Your task to perform on an android device: toggle location history Image 0: 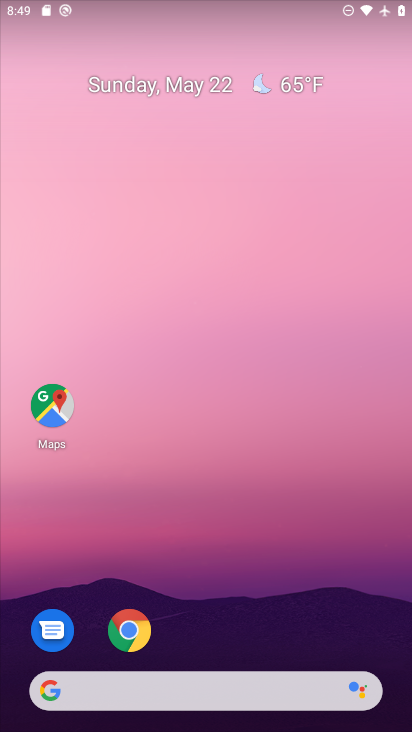
Step 0: press home button
Your task to perform on an android device: toggle location history Image 1: 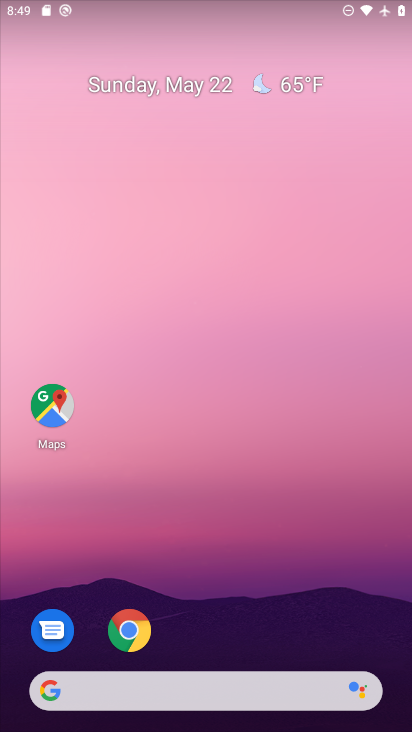
Step 1: click (51, 412)
Your task to perform on an android device: toggle location history Image 2: 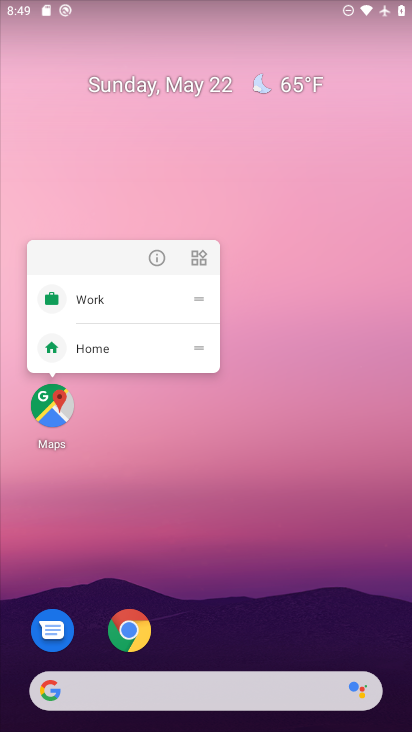
Step 2: click (48, 405)
Your task to perform on an android device: toggle location history Image 3: 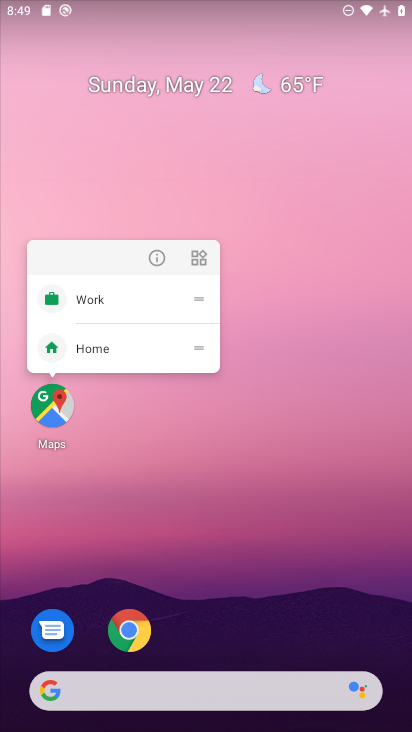
Step 3: click (48, 417)
Your task to perform on an android device: toggle location history Image 4: 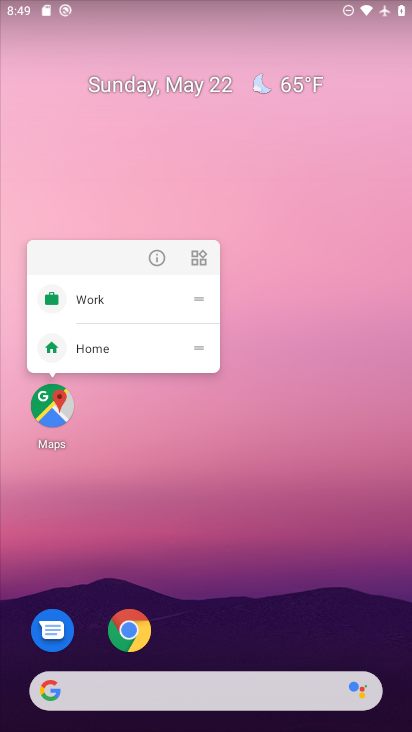
Step 4: click (52, 422)
Your task to perform on an android device: toggle location history Image 5: 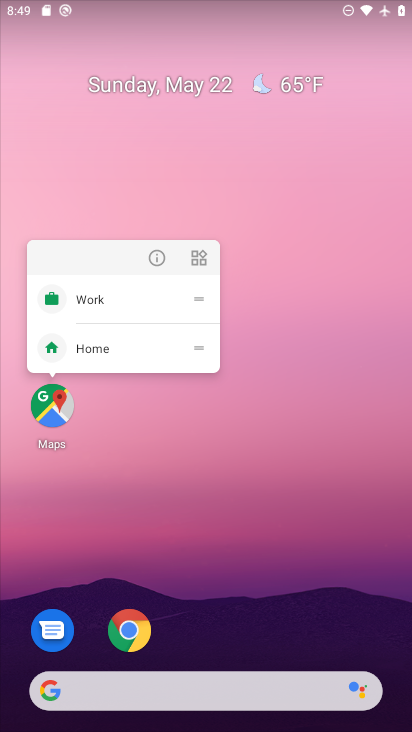
Step 5: click (55, 416)
Your task to perform on an android device: toggle location history Image 6: 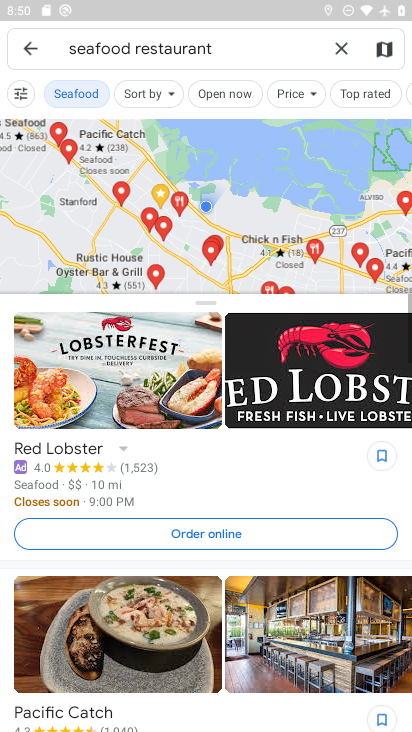
Step 6: click (29, 49)
Your task to perform on an android device: toggle location history Image 7: 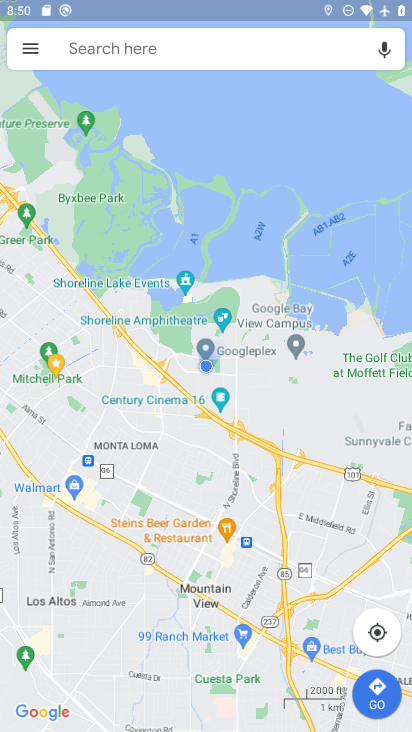
Step 7: click (29, 51)
Your task to perform on an android device: toggle location history Image 8: 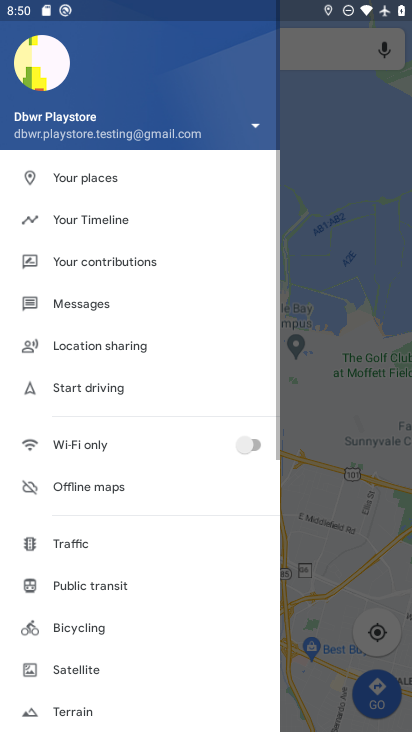
Step 8: click (88, 218)
Your task to perform on an android device: toggle location history Image 9: 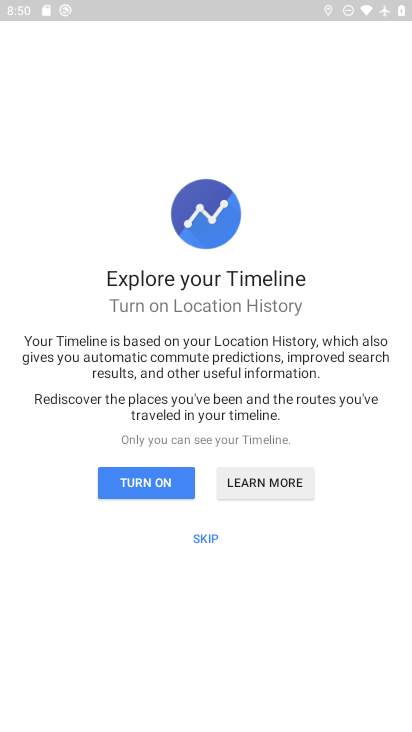
Step 9: click (211, 538)
Your task to perform on an android device: toggle location history Image 10: 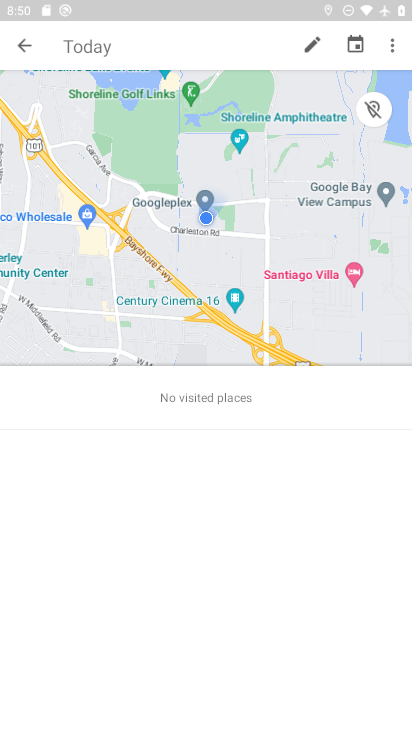
Step 10: click (394, 41)
Your task to perform on an android device: toggle location history Image 11: 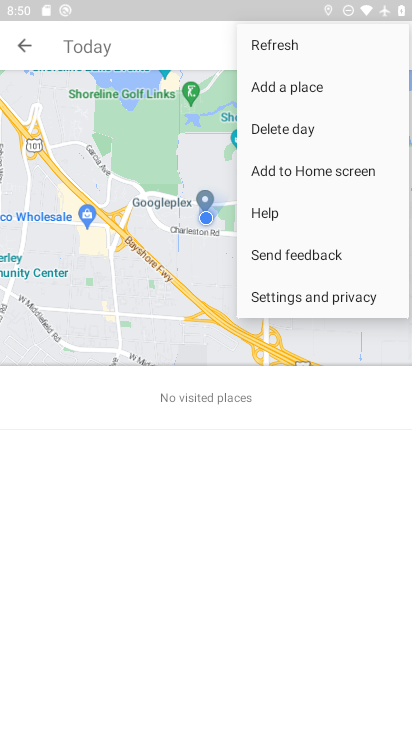
Step 11: click (291, 292)
Your task to perform on an android device: toggle location history Image 12: 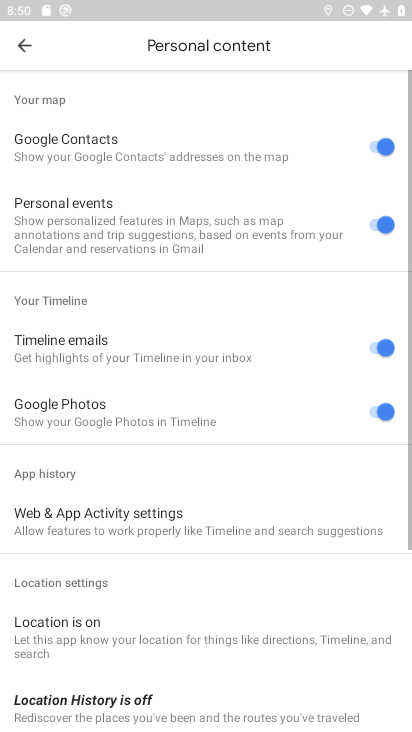
Step 12: drag from (209, 547) to (319, 203)
Your task to perform on an android device: toggle location history Image 13: 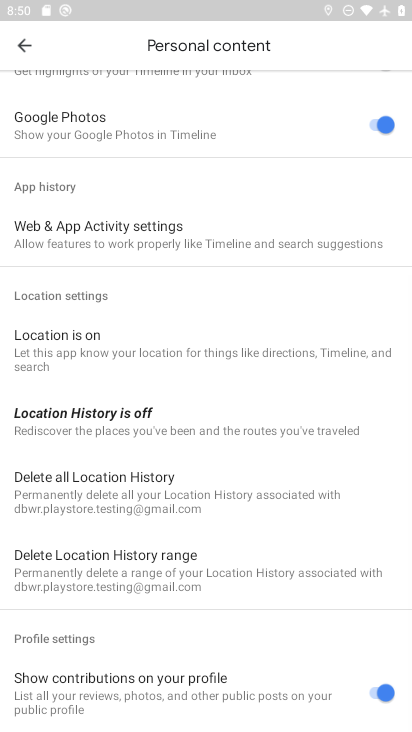
Step 13: click (193, 429)
Your task to perform on an android device: toggle location history Image 14: 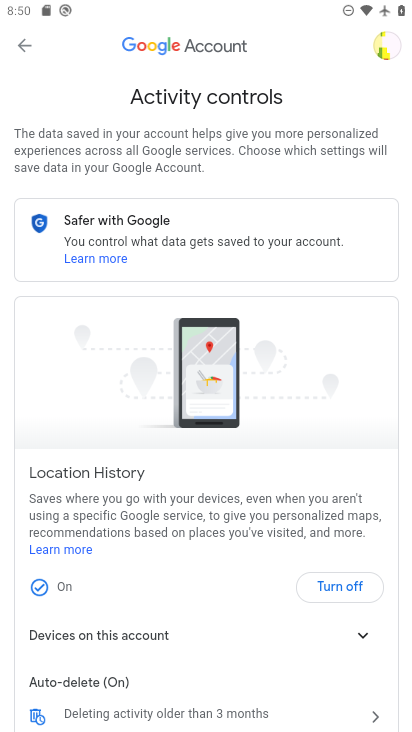
Step 14: click (342, 584)
Your task to perform on an android device: toggle location history Image 15: 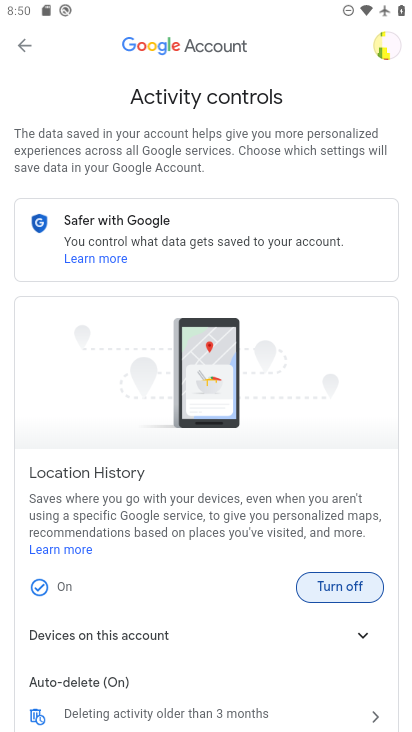
Step 15: click (328, 592)
Your task to perform on an android device: toggle location history Image 16: 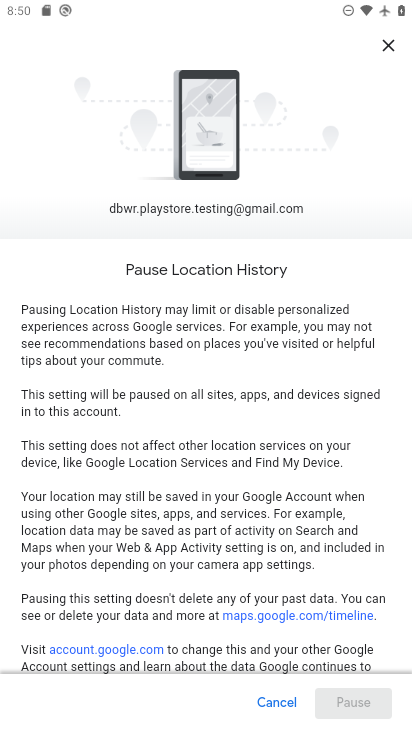
Step 16: drag from (228, 586) to (380, 218)
Your task to perform on an android device: toggle location history Image 17: 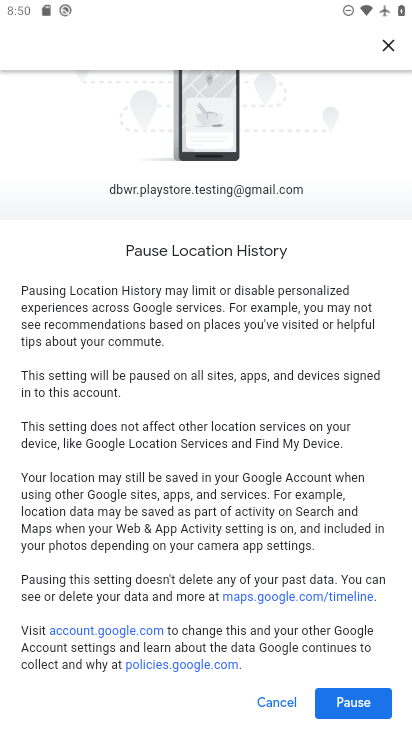
Step 17: click (353, 705)
Your task to perform on an android device: toggle location history Image 18: 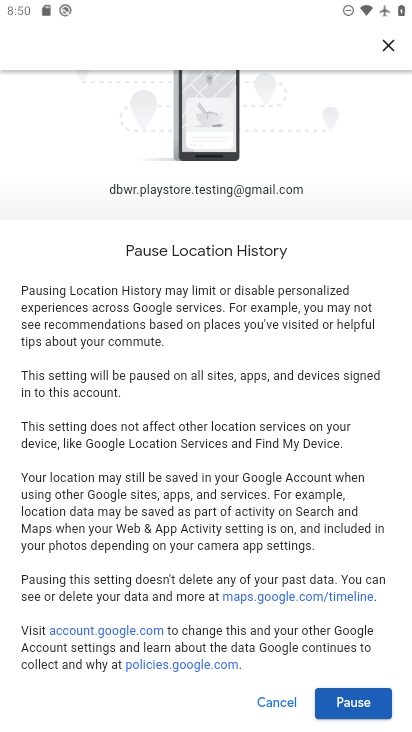
Step 18: click (353, 705)
Your task to perform on an android device: toggle location history Image 19: 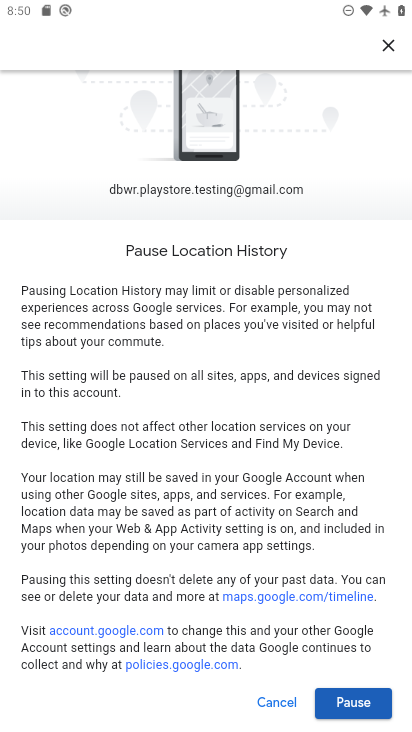
Step 19: click (360, 701)
Your task to perform on an android device: toggle location history Image 20: 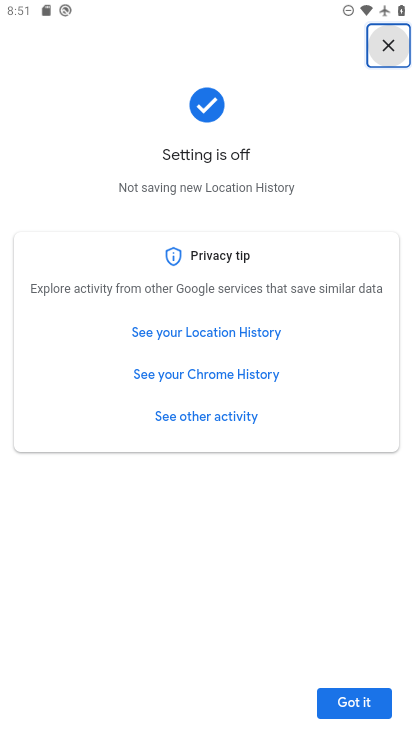
Step 20: click (359, 702)
Your task to perform on an android device: toggle location history Image 21: 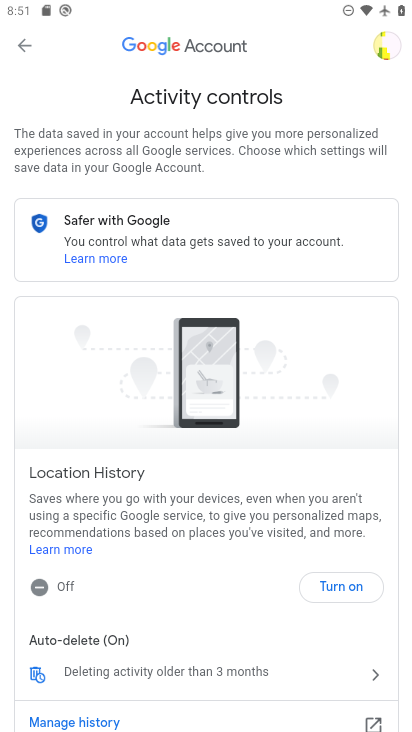
Step 21: task complete